Your task to perform on an android device: see creations saved in the google photos Image 0: 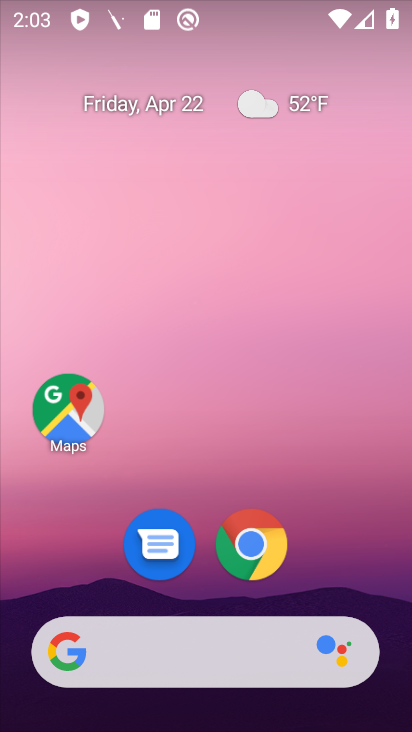
Step 0: drag from (199, 567) to (248, 13)
Your task to perform on an android device: see creations saved in the google photos Image 1: 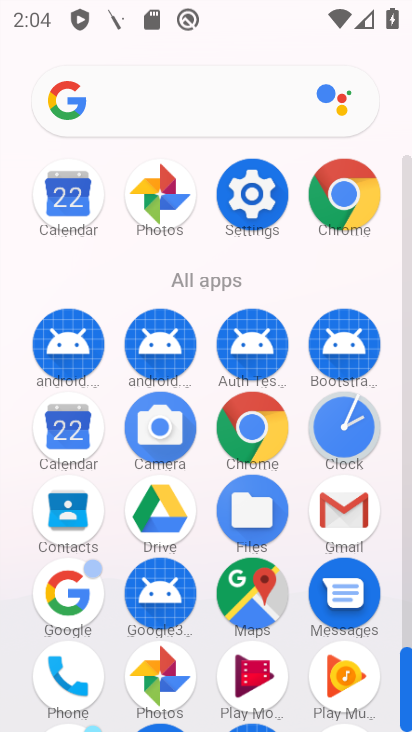
Step 1: click (156, 187)
Your task to perform on an android device: see creations saved in the google photos Image 2: 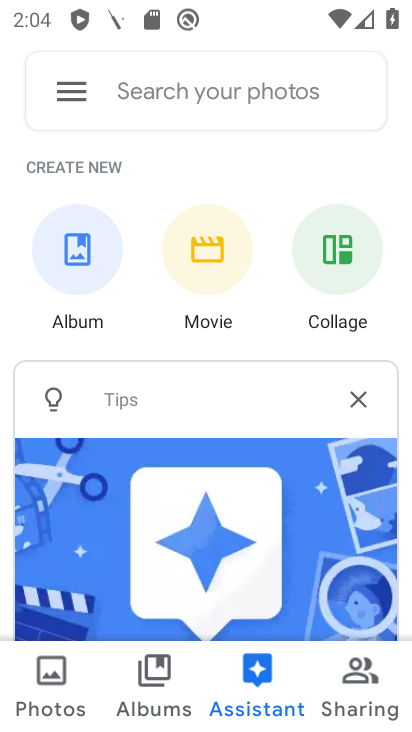
Step 2: click (163, 667)
Your task to perform on an android device: see creations saved in the google photos Image 3: 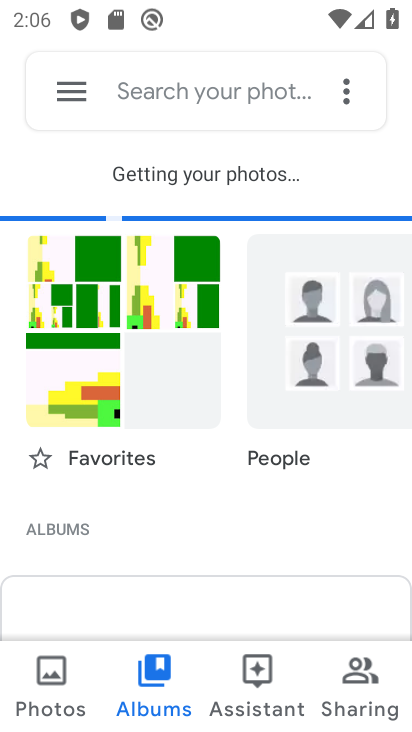
Step 3: task complete